Your task to perform on an android device: Go to Amazon Image 0: 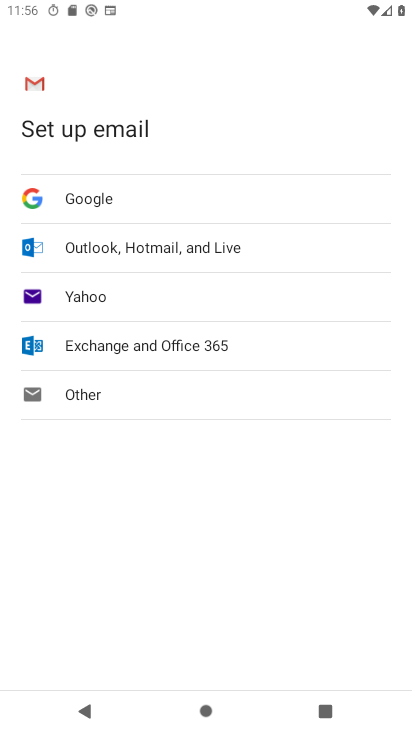
Step 0: press home button
Your task to perform on an android device: Go to Amazon Image 1: 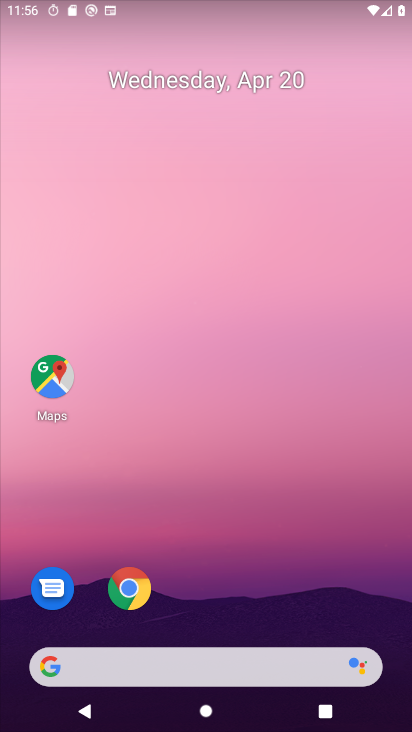
Step 1: click (127, 586)
Your task to perform on an android device: Go to Amazon Image 2: 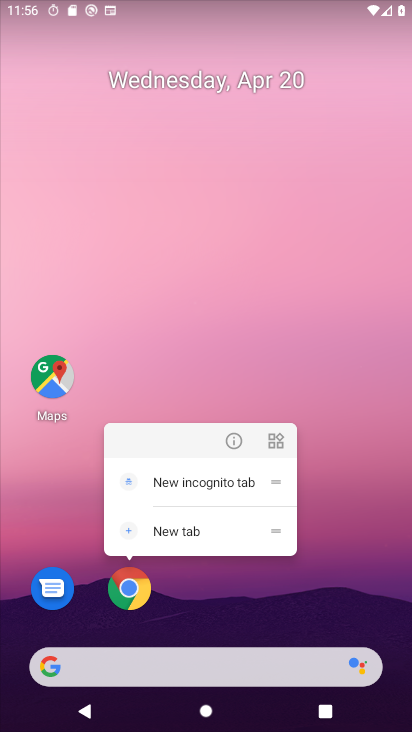
Step 2: click (126, 584)
Your task to perform on an android device: Go to Amazon Image 3: 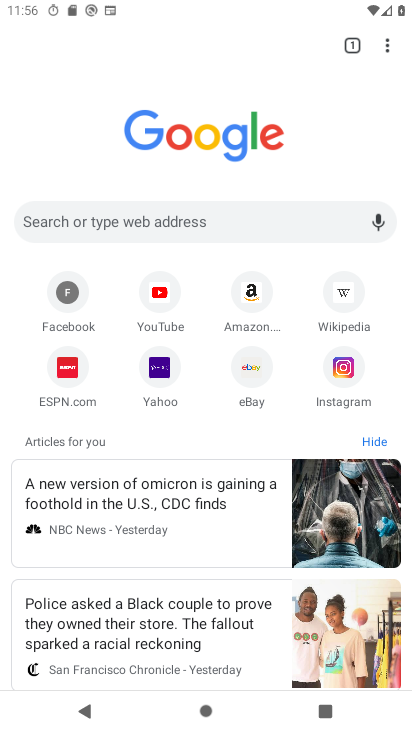
Step 3: click (251, 289)
Your task to perform on an android device: Go to Amazon Image 4: 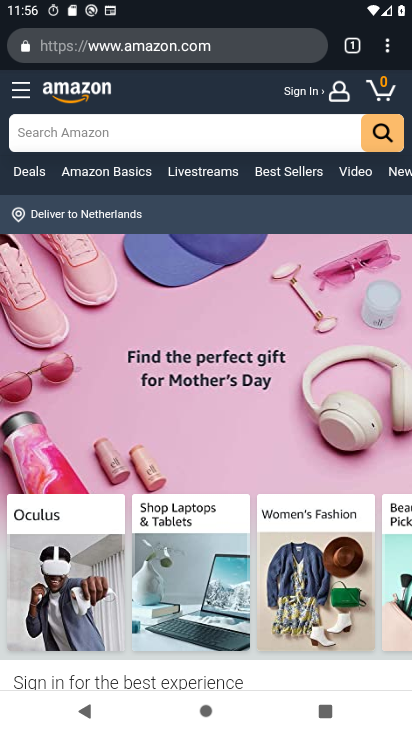
Step 4: task complete